Your task to perform on an android device: turn off sleep mode Image 0: 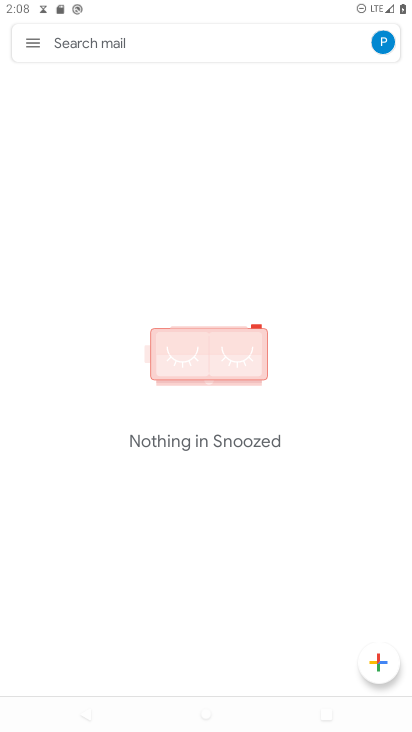
Step 0: press home button
Your task to perform on an android device: turn off sleep mode Image 1: 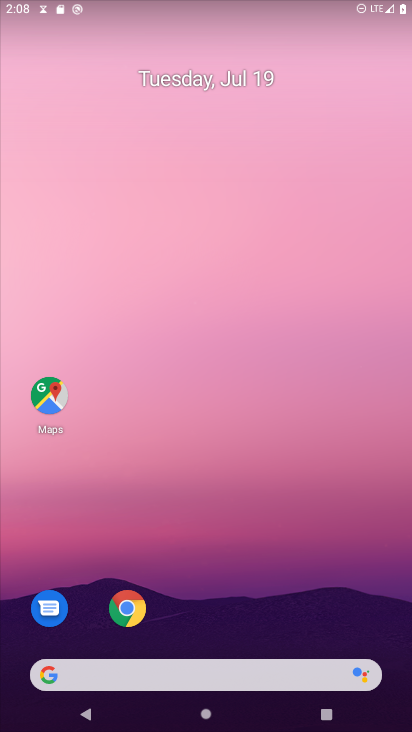
Step 1: drag from (260, 672) to (368, 11)
Your task to perform on an android device: turn off sleep mode Image 2: 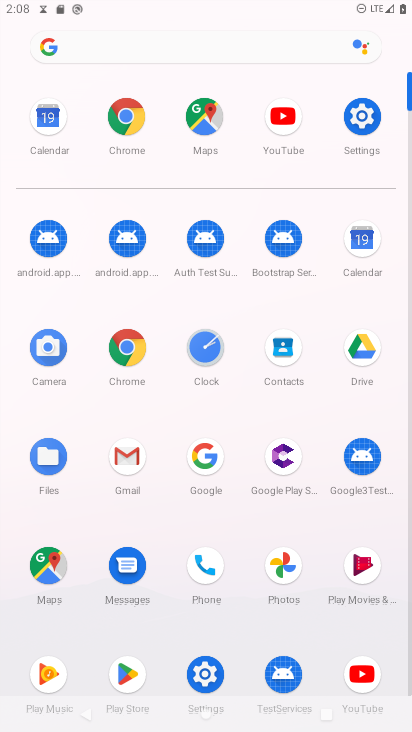
Step 2: click (365, 110)
Your task to perform on an android device: turn off sleep mode Image 3: 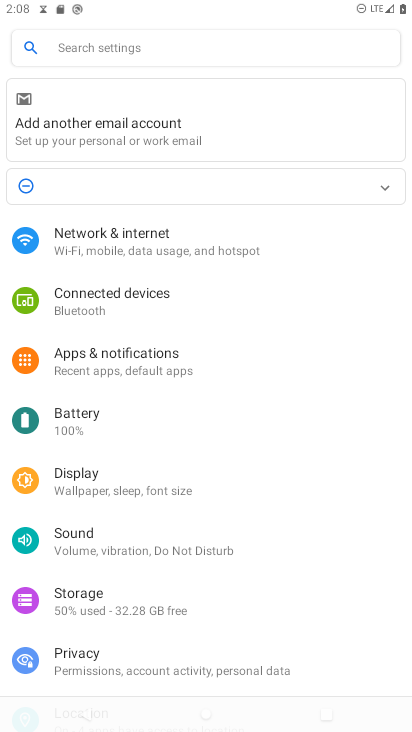
Step 3: click (154, 491)
Your task to perform on an android device: turn off sleep mode Image 4: 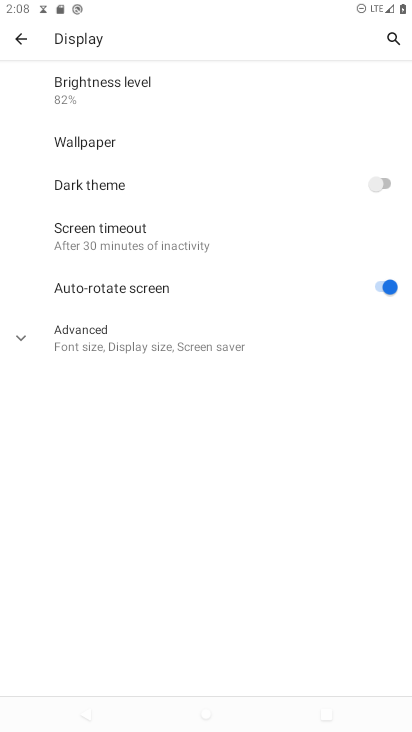
Step 4: task complete